Your task to perform on an android device: Open display settings Image 0: 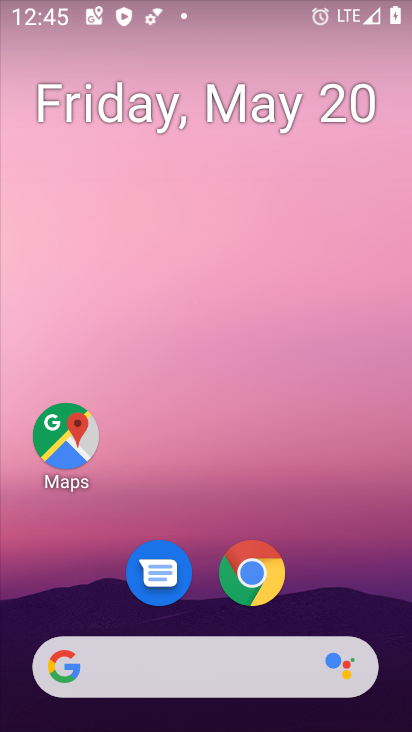
Step 0: drag from (319, 576) to (315, 126)
Your task to perform on an android device: Open display settings Image 1: 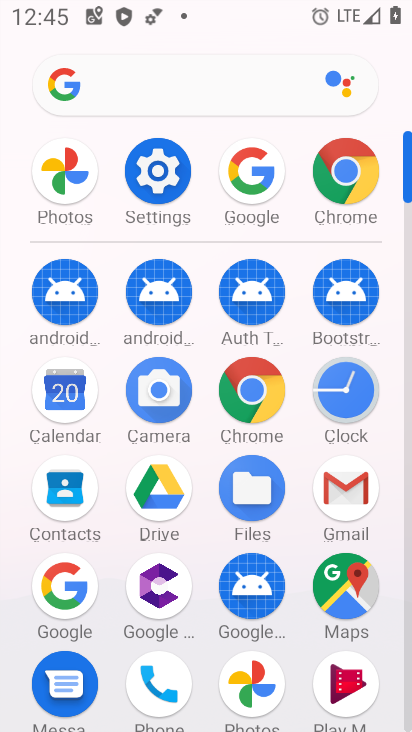
Step 1: click (151, 168)
Your task to perform on an android device: Open display settings Image 2: 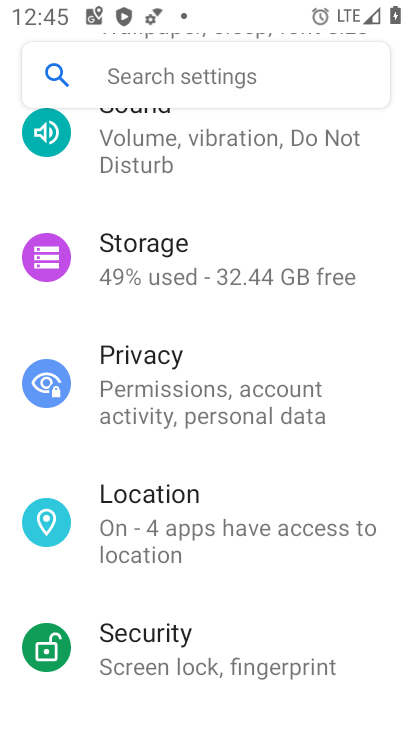
Step 2: drag from (219, 245) to (209, 594)
Your task to perform on an android device: Open display settings Image 3: 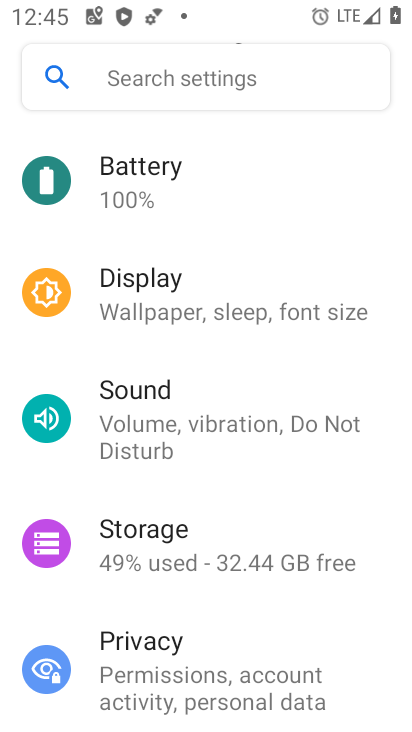
Step 3: click (185, 322)
Your task to perform on an android device: Open display settings Image 4: 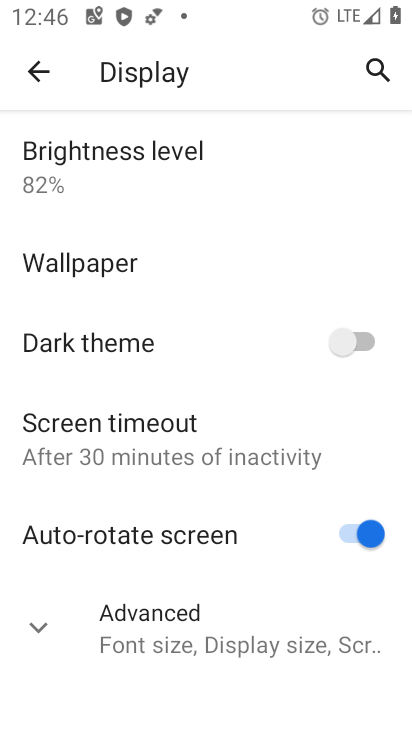
Step 4: task complete